Your task to perform on an android device: Go to Maps Image 0: 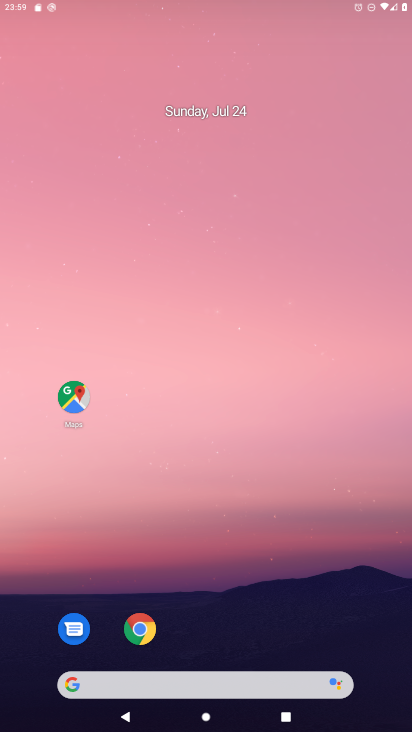
Step 0: drag from (184, 616) to (179, 141)
Your task to perform on an android device: Go to Maps Image 1: 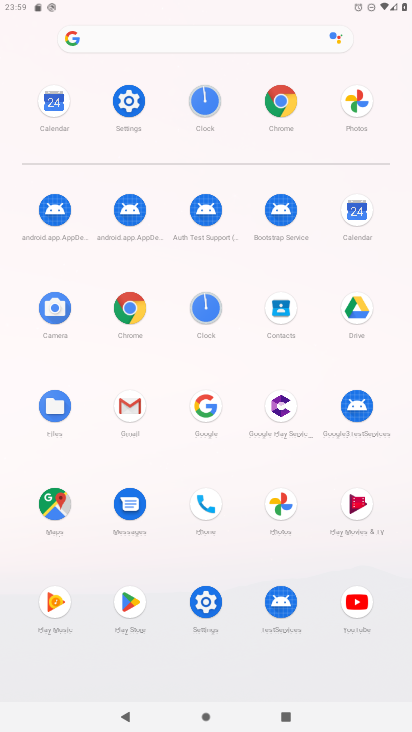
Step 1: click (47, 509)
Your task to perform on an android device: Go to Maps Image 2: 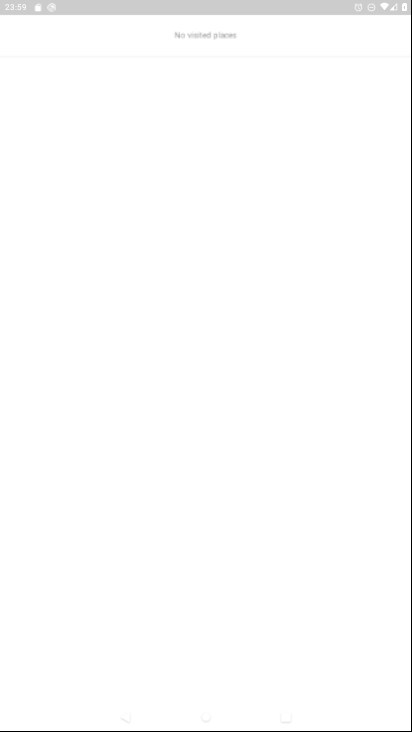
Step 2: task complete